Your task to perform on an android device: change text size in settings app Image 0: 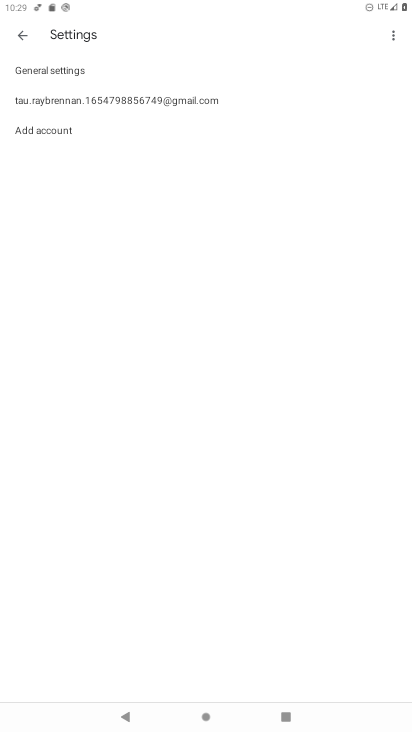
Step 0: press home button
Your task to perform on an android device: change text size in settings app Image 1: 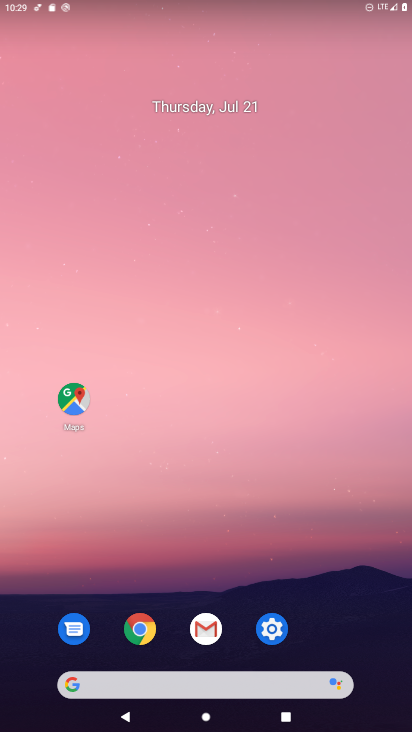
Step 1: click (275, 626)
Your task to perform on an android device: change text size in settings app Image 2: 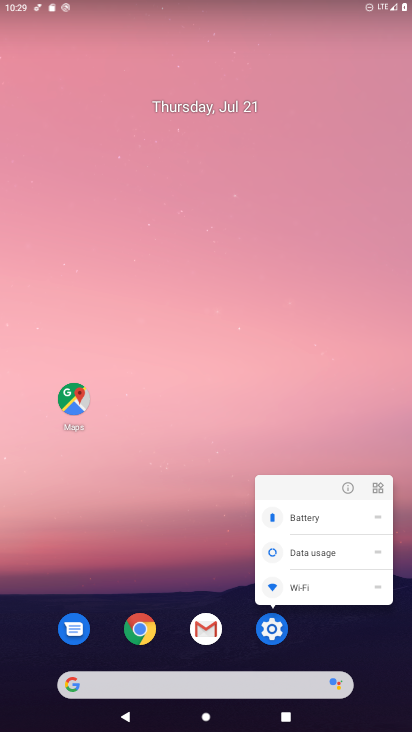
Step 2: click (269, 620)
Your task to perform on an android device: change text size in settings app Image 3: 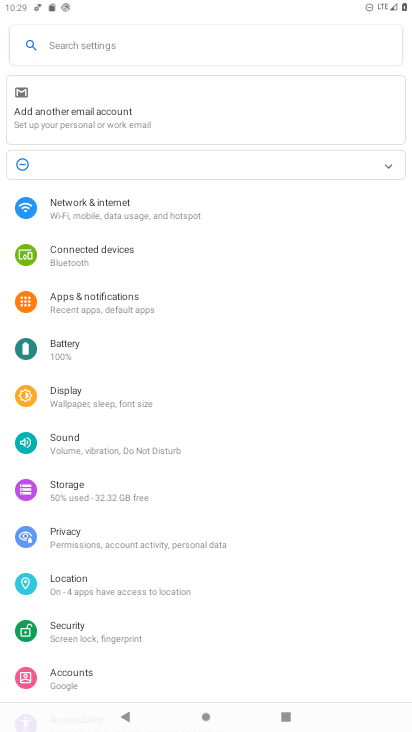
Step 3: click (84, 49)
Your task to perform on an android device: change text size in settings app Image 4: 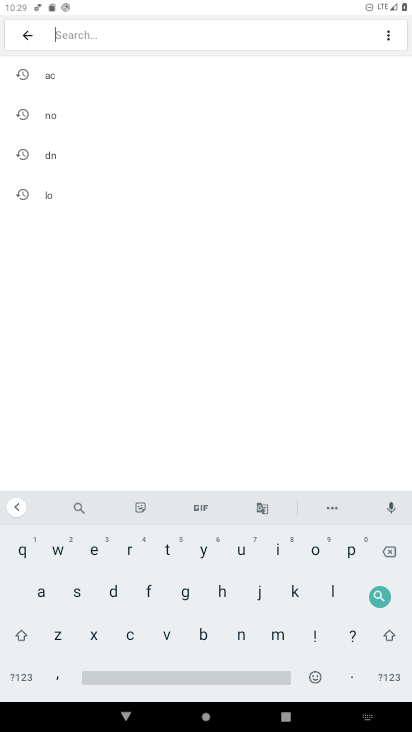
Step 4: click (73, 589)
Your task to perform on an android device: change text size in settings app Image 5: 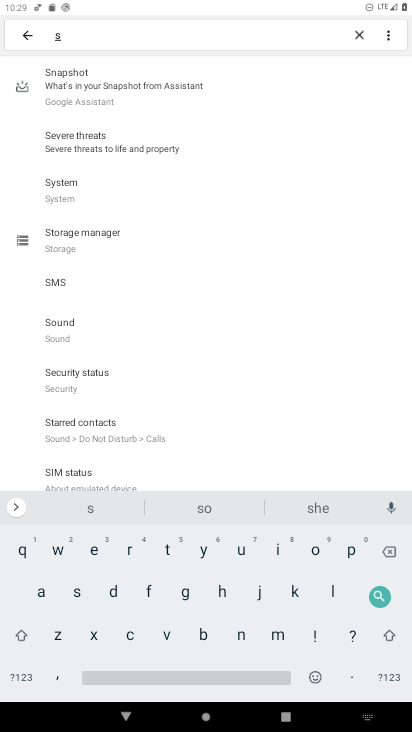
Step 5: click (277, 546)
Your task to perform on an android device: change text size in settings app Image 6: 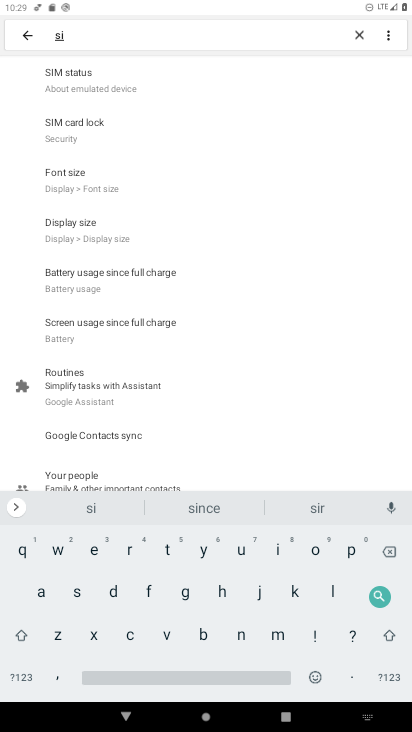
Step 6: click (54, 632)
Your task to perform on an android device: change text size in settings app Image 7: 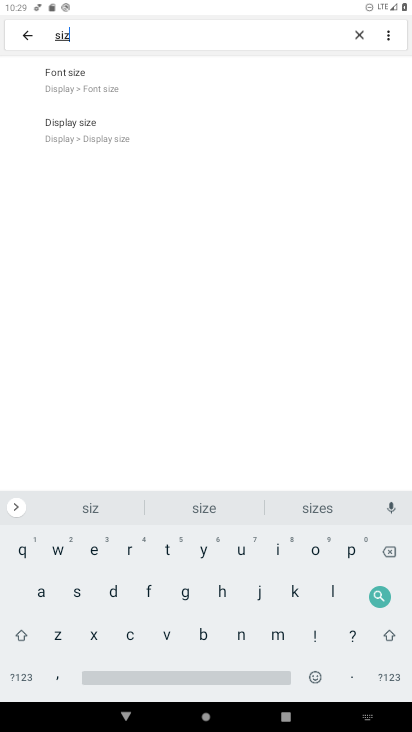
Step 7: click (91, 82)
Your task to perform on an android device: change text size in settings app Image 8: 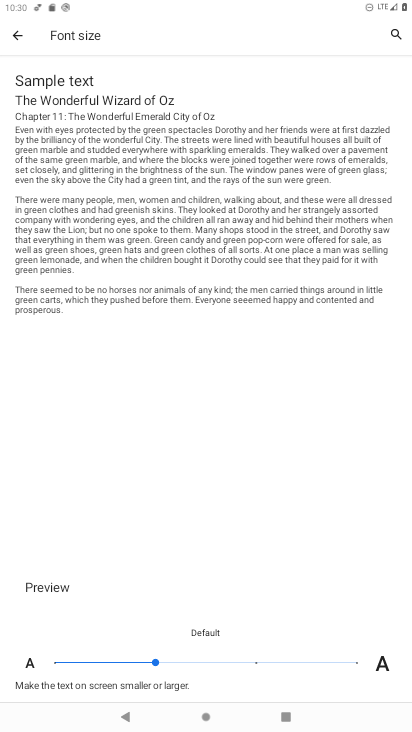
Step 8: click (242, 666)
Your task to perform on an android device: change text size in settings app Image 9: 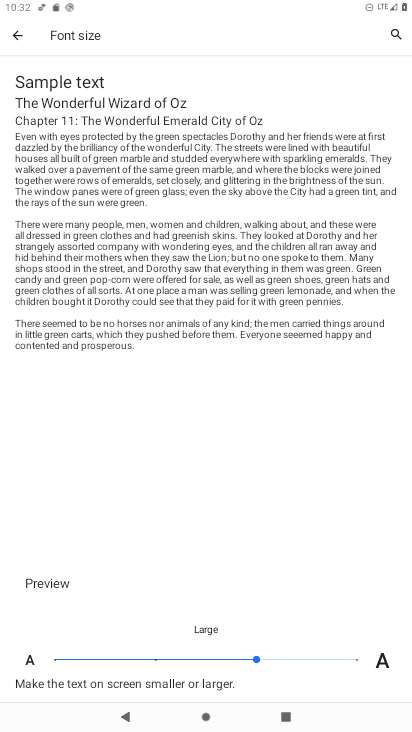
Step 9: task complete